Your task to perform on an android device: turn on showing notifications on the lock screen Image 0: 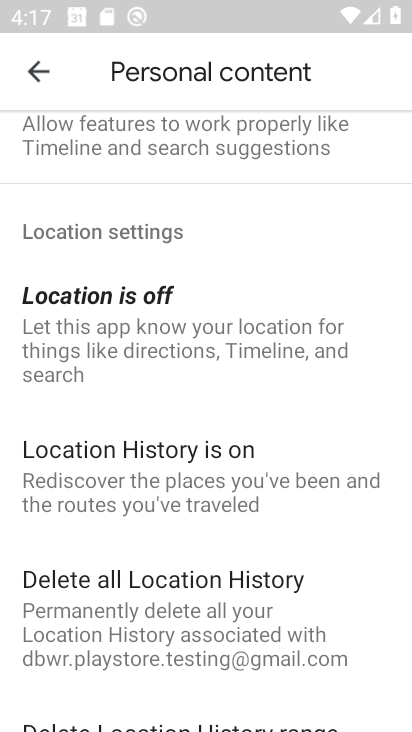
Step 0: press home button
Your task to perform on an android device: turn on showing notifications on the lock screen Image 1: 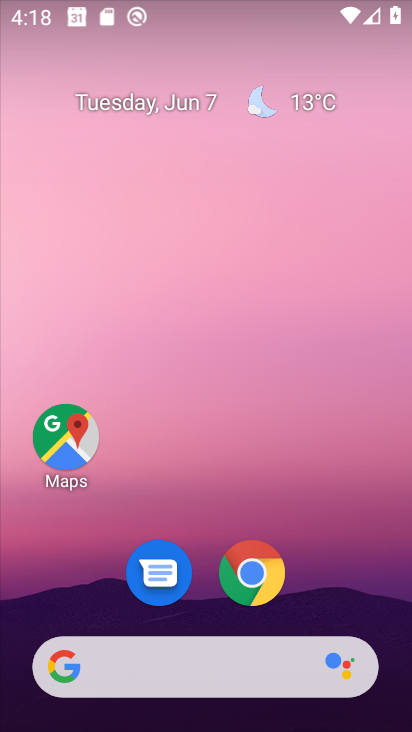
Step 1: drag from (376, 578) to (379, 37)
Your task to perform on an android device: turn on showing notifications on the lock screen Image 2: 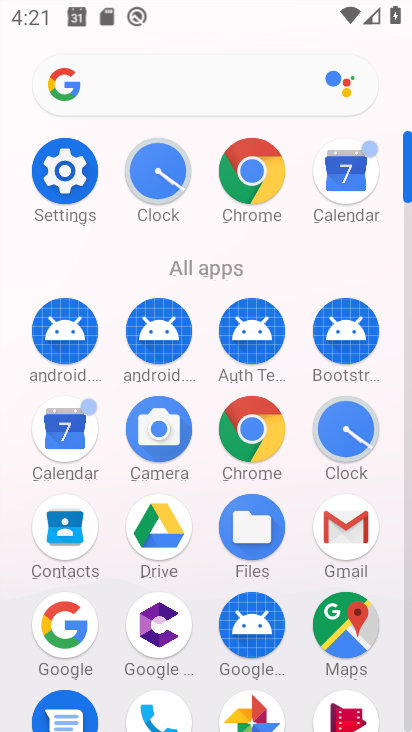
Step 2: click (53, 182)
Your task to perform on an android device: turn on showing notifications on the lock screen Image 3: 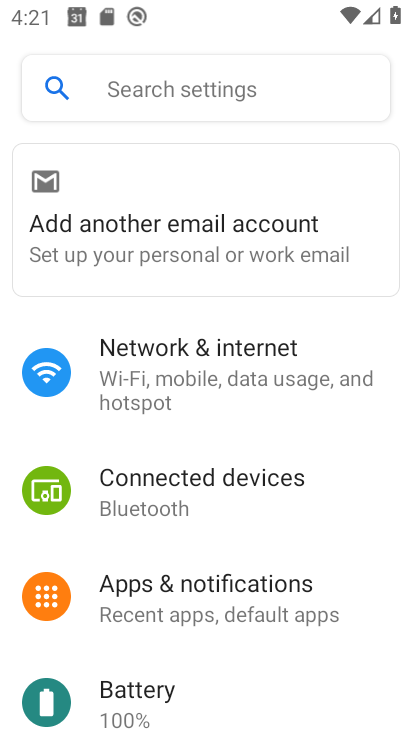
Step 3: click (166, 602)
Your task to perform on an android device: turn on showing notifications on the lock screen Image 4: 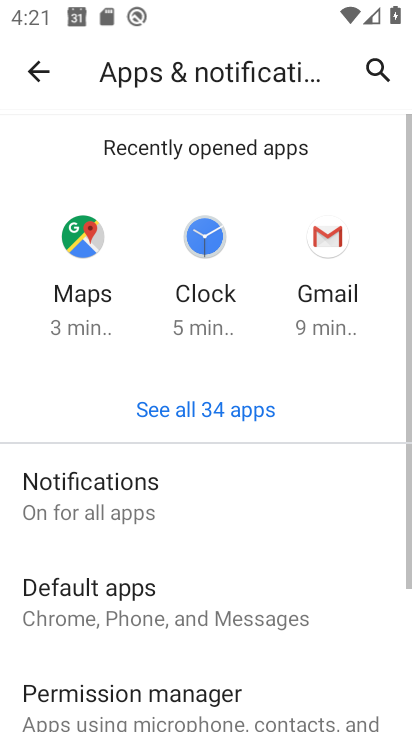
Step 4: click (162, 473)
Your task to perform on an android device: turn on showing notifications on the lock screen Image 5: 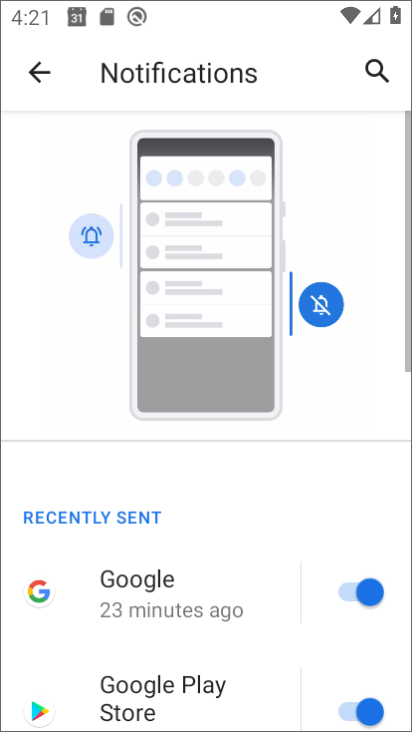
Step 5: drag from (248, 561) to (255, 153)
Your task to perform on an android device: turn on showing notifications on the lock screen Image 6: 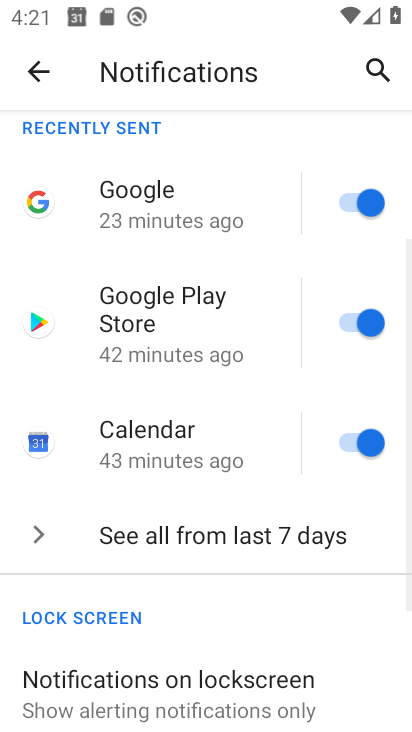
Step 6: drag from (181, 593) to (254, 206)
Your task to perform on an android device: turn on showing notifications on the lock screen Image 7: 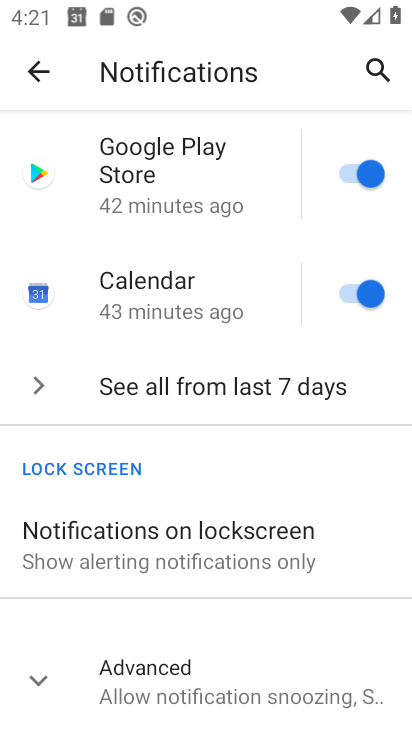
Step 7: click (178, 548)
Your task to perform on an android device: turn on showing notifications on the lock screen Image 8: 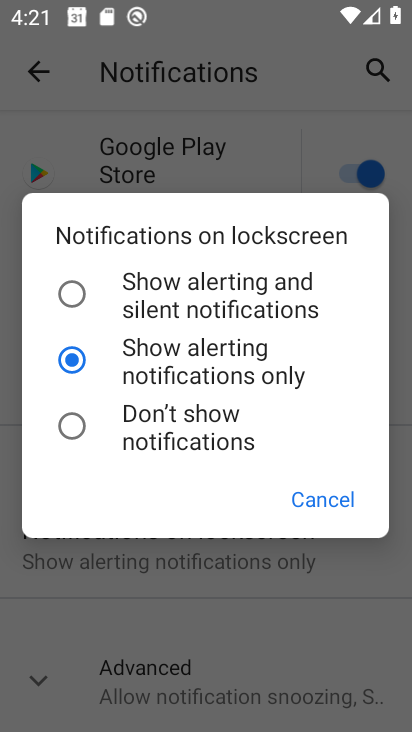
Step 8: click (212, 295)
Your task to perform on an android device: turn on showing notifications on the lock screen Image 9: 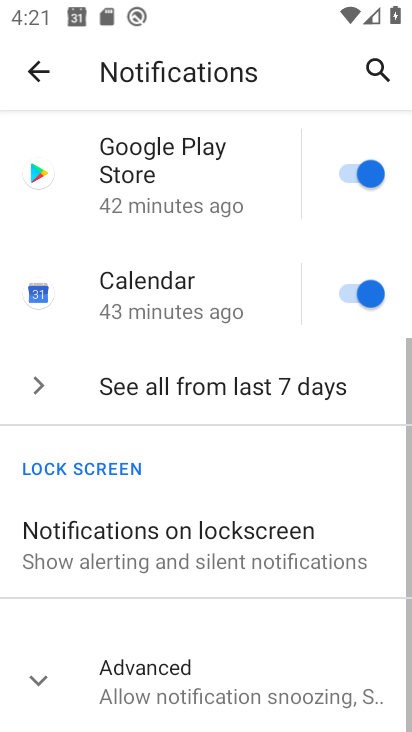
Step 9: task complete